Your task to perform on an android device: Go to notification settings Image 0: 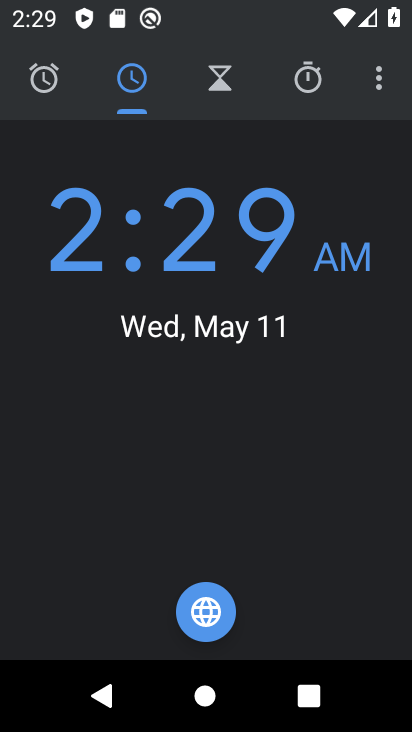
Step 0: press home button
Your task to perform on an android device: Go to notification settings Image 1: 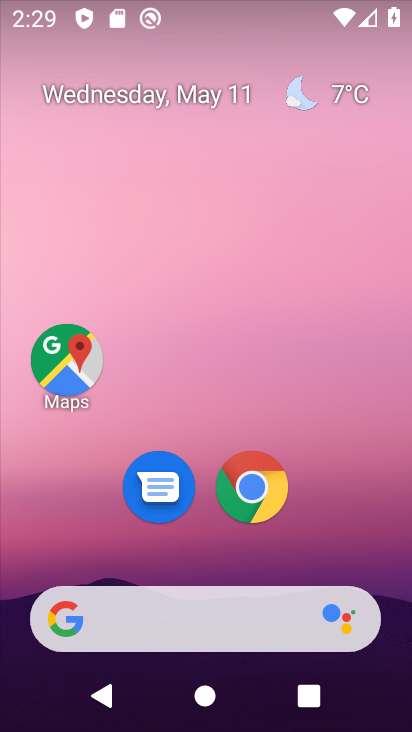
Step 1: drag from (346, 645) to (367, 68)
Your task to perform on an android device: Go to notification settings Image 2: 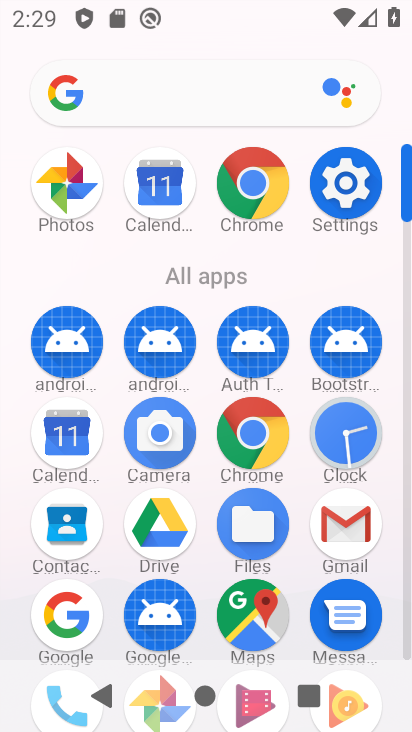
Step 2: click (360, 171)
Your task to perform on an android device: Go to notification settings Image 3: 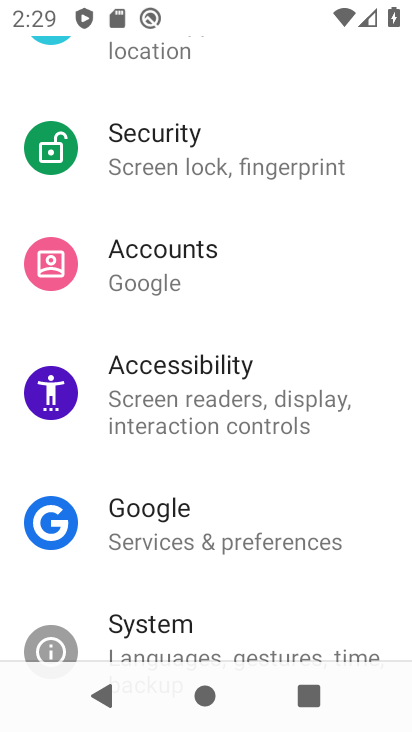
Step 3: drag from (163, 207) to (206, 649)
Your task to perform on an android device: Go to notification settings Image 4: 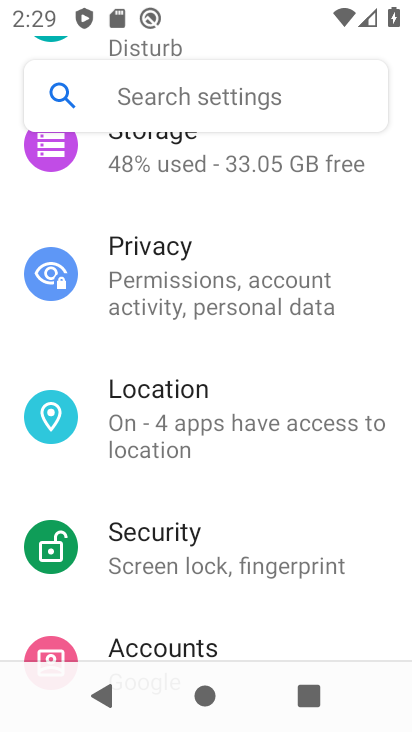
Step 4: drag from (178, 207) to (243, 635)
Your task to perform on an android device: Go to notification settings Image 5: 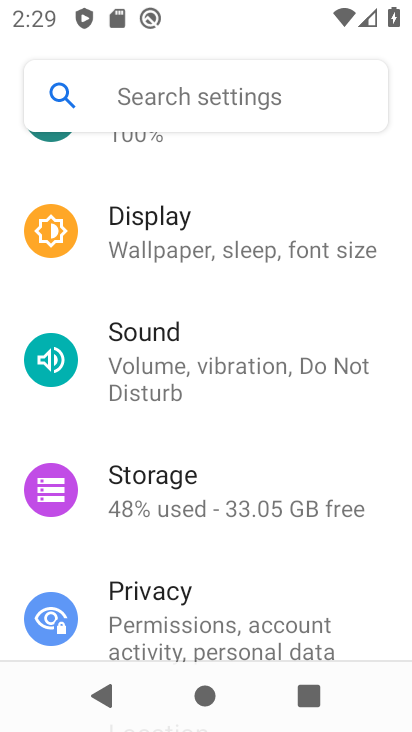
Step 5: drag from (248, 402) to (265, 683)
Your task to perform on an android device: Go to notification settings Image 6: 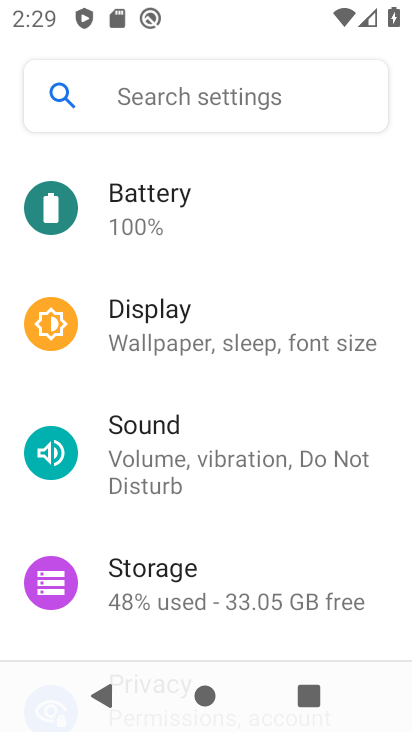
Step 6: drag from (250, 290) to (303, 627)
Your task to perform on an android device: Go to notification settings Image 7: 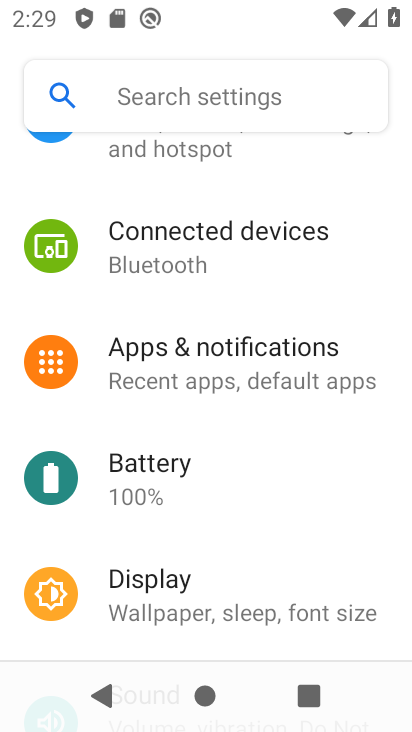
Step 7: click (221, 367)
Your task to perform on an android device: Go to notification settings Image 8: 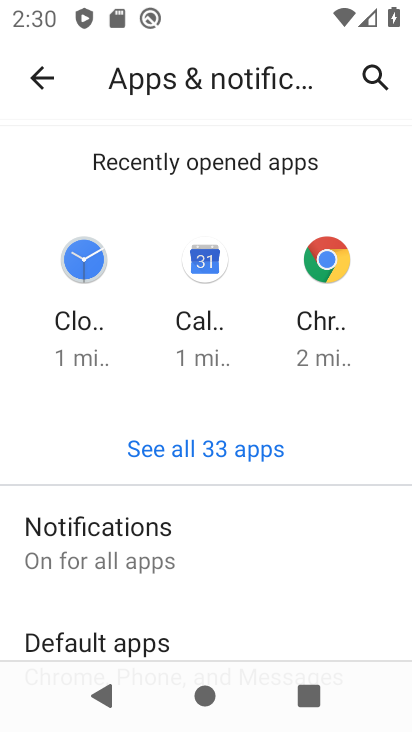
Step 8: task complete